Your task to perform on an android device: Set the phone to "Do not disturb". Image 0: 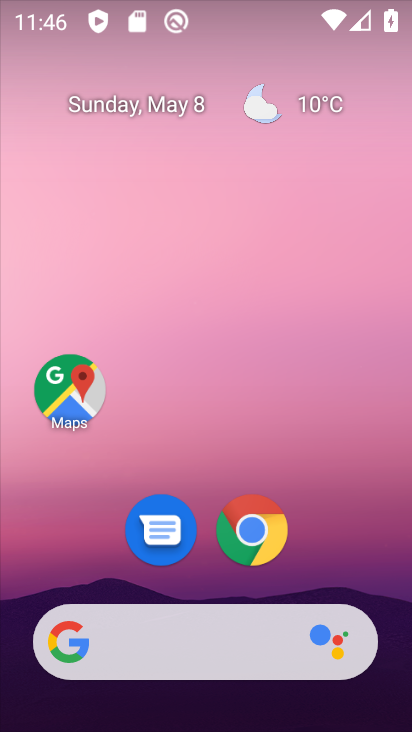
Step 0: drag from (219, 565) to (276, 24)
Your task to perform on an android device: Set the phone to "Do not disturb". Image 1: 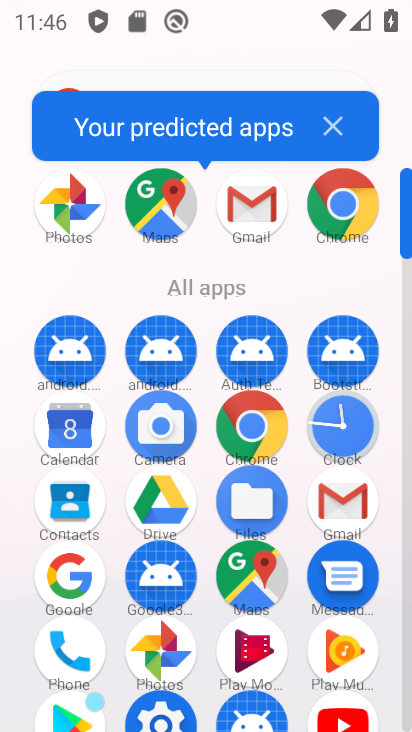
Step 1: drag from (222, 2) to (123, 584)
Your task to perform on an android device: Set the phone to "Do not disturb". Image 2: 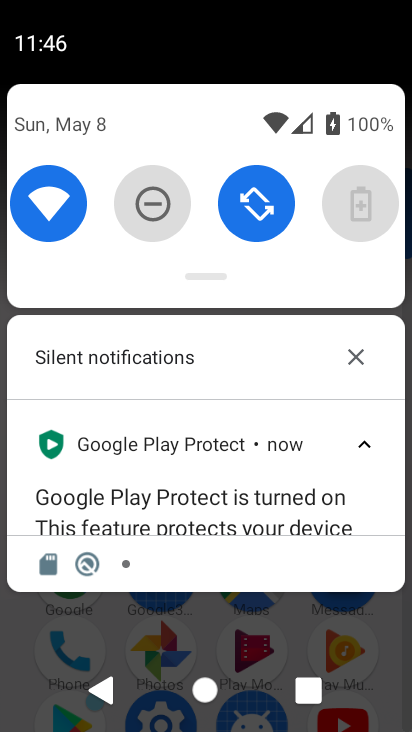
Step 2: click (143, 195)
Your task to perform on an android device: Set the phone to "Do not disturb". Image 3: 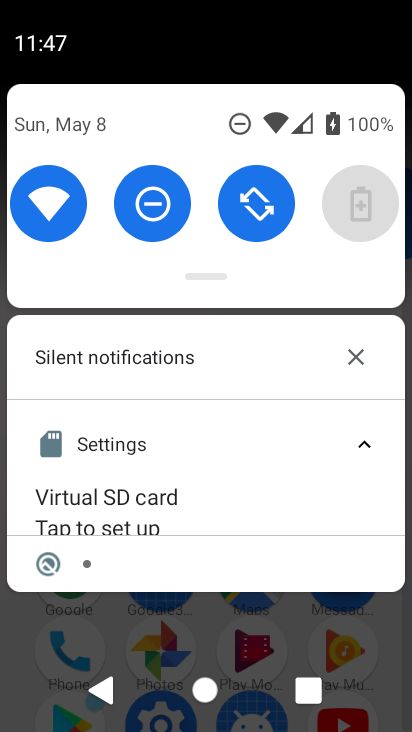
Step 3: task complete